Your task to perform on an android device: install app "NewsBreak: Local News & Alerts" Image 0: 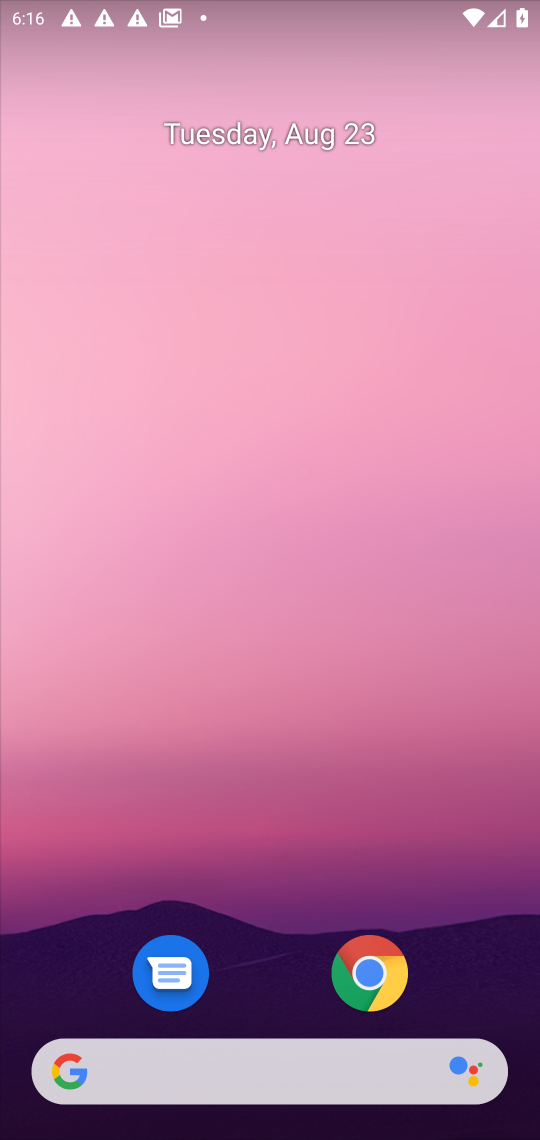
Step 0: press back button
Your task to perform on an android device: install app "NewsBreak: Local News & Alerts" Image 1: 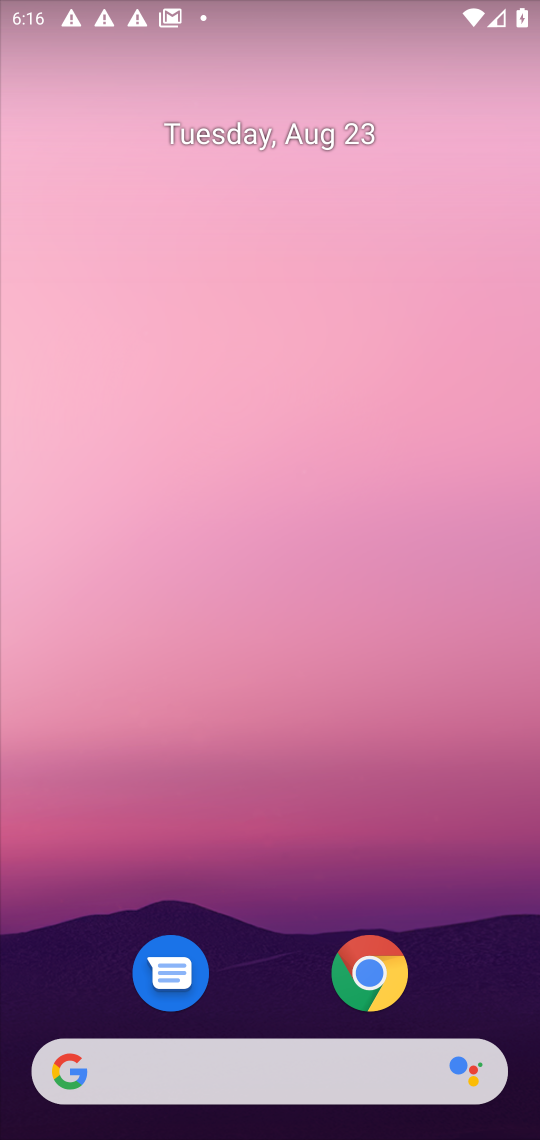
Step 1: drag from (277, 936) to (342, 285)
Your task to perform on an android device: install app "NewsBreak: Local News & Alerts" Image 2: 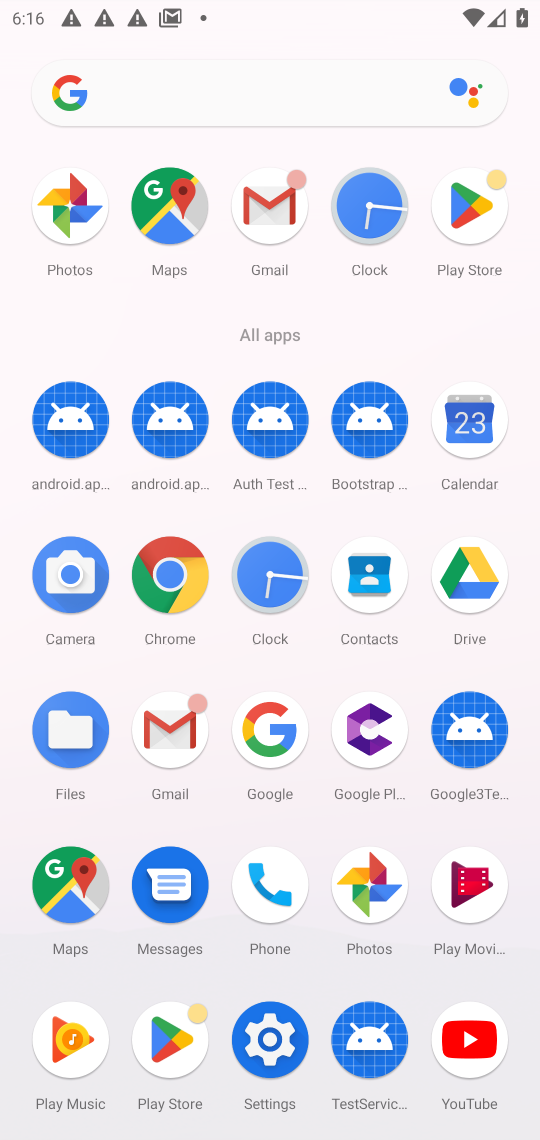
Step 2: click (457, 215)
Your task to perform on an android device: install app "NewsBreak: Local News & Alerts" Image 3: 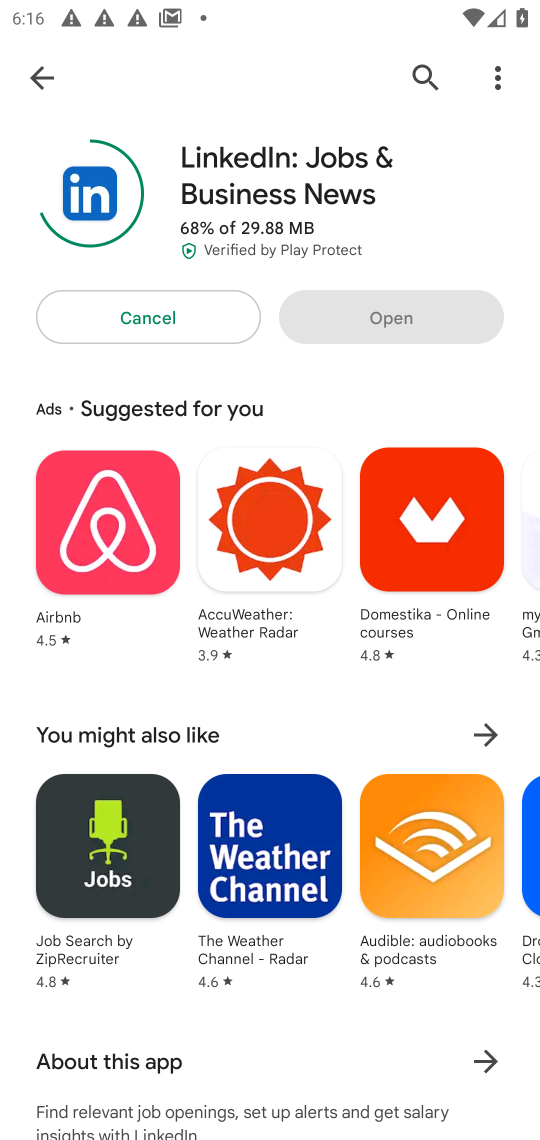
Step 3: click (409, 69)
Your task to perform on an android device: install app "NewsBreak: Local News & Alerts" Image 4: 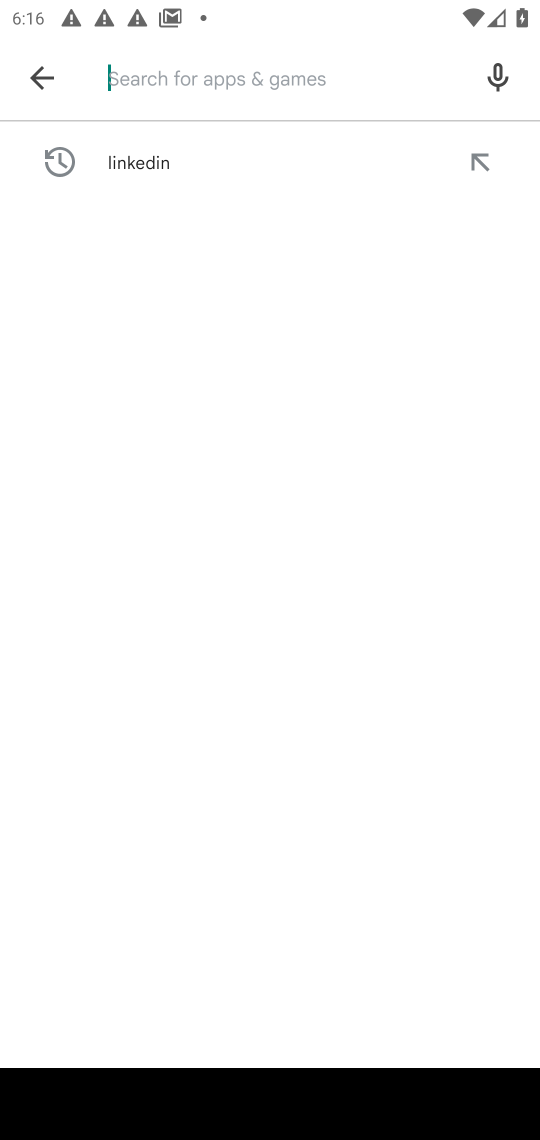
Step 4: click (132, 66)
Your task to perform on an android device: install app "NewsBreak: Local News & Alerts" Image 5: 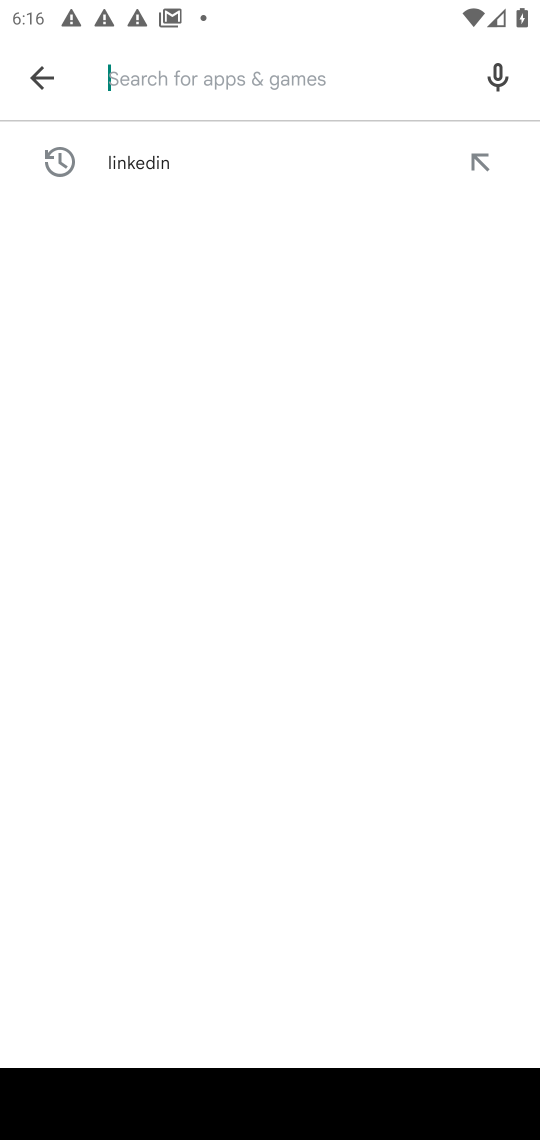
Step 5: type "NewsBreak: Local News & Alert"
Your task to perform on an android device: install app "NewsBreak: Local News & Alerts" Image 6: 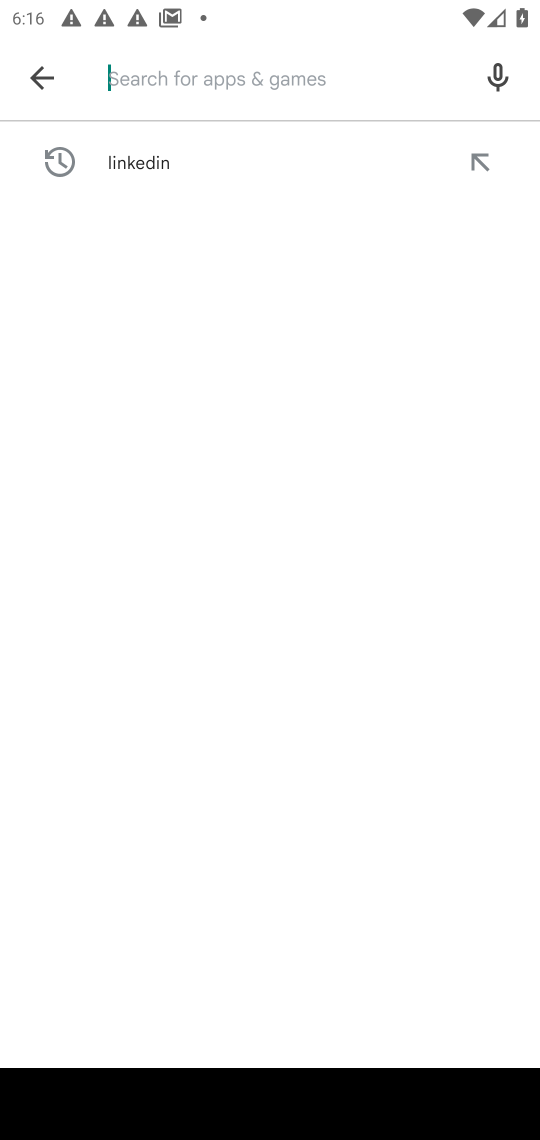
Step 6: click (380, 663)
Your task to perform on an android device: install app "NewsBreak: Local News & Alerts" Image 7: 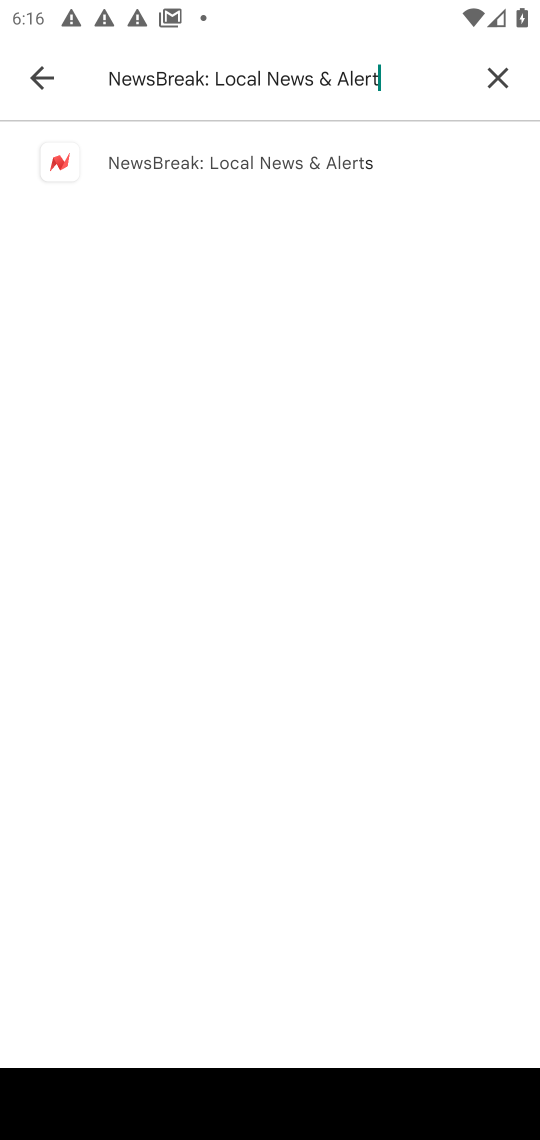
Step 7: click (205, 152)
Your task to perform on an android device: install app "NewsBreak: Local News & Alerts" Image 8: 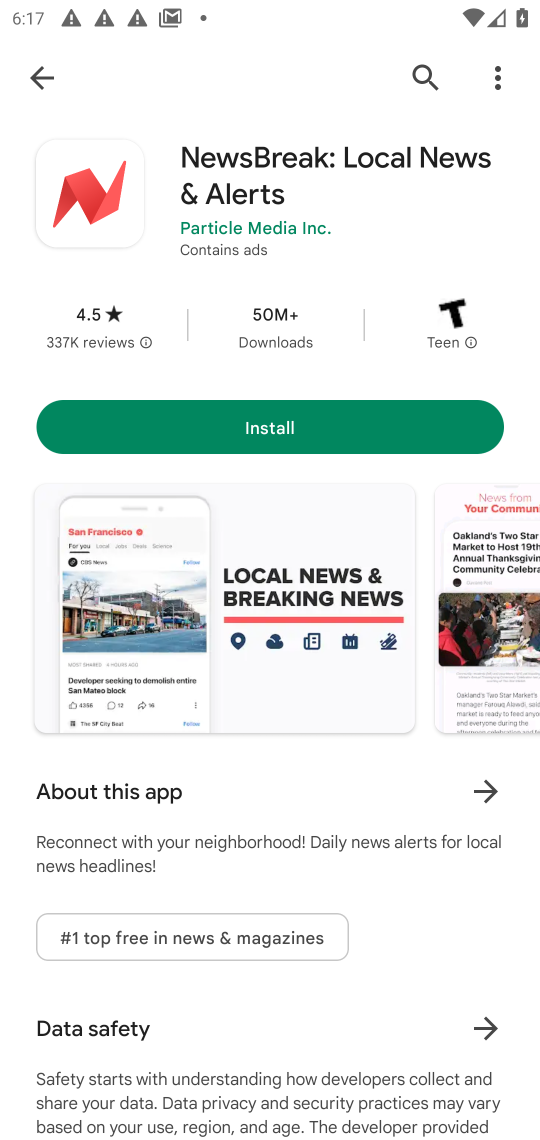
Step 8: click (256, 438)
Your task to perform on an android device: install app "NewsBreak: Local News & Alerts" Image 9: 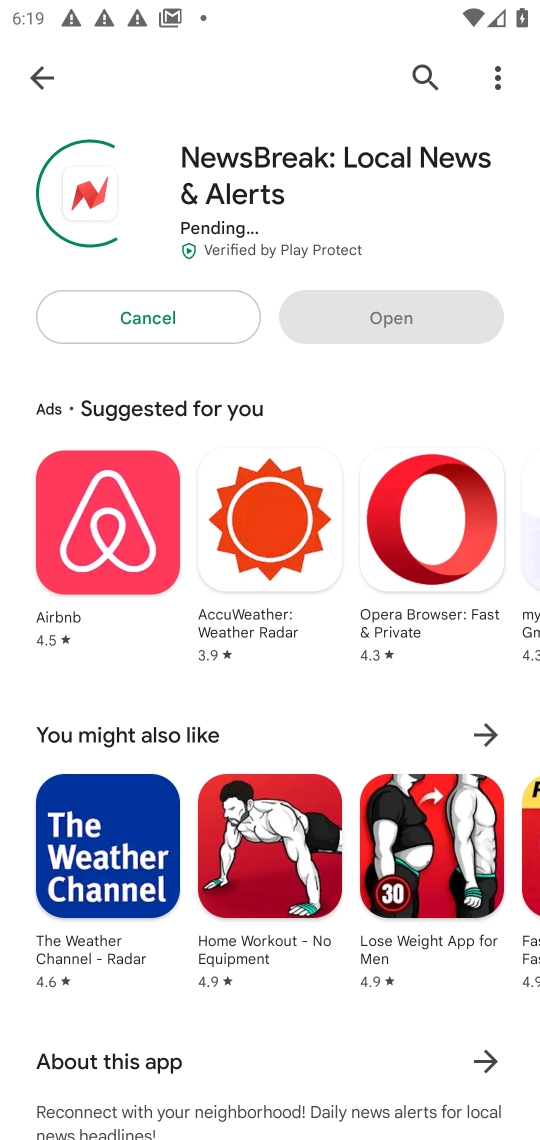
Step 9: click (175, 319)
Your task to perform on an android device: install app "NewsBreak: Local News & Alerts" Image 10: 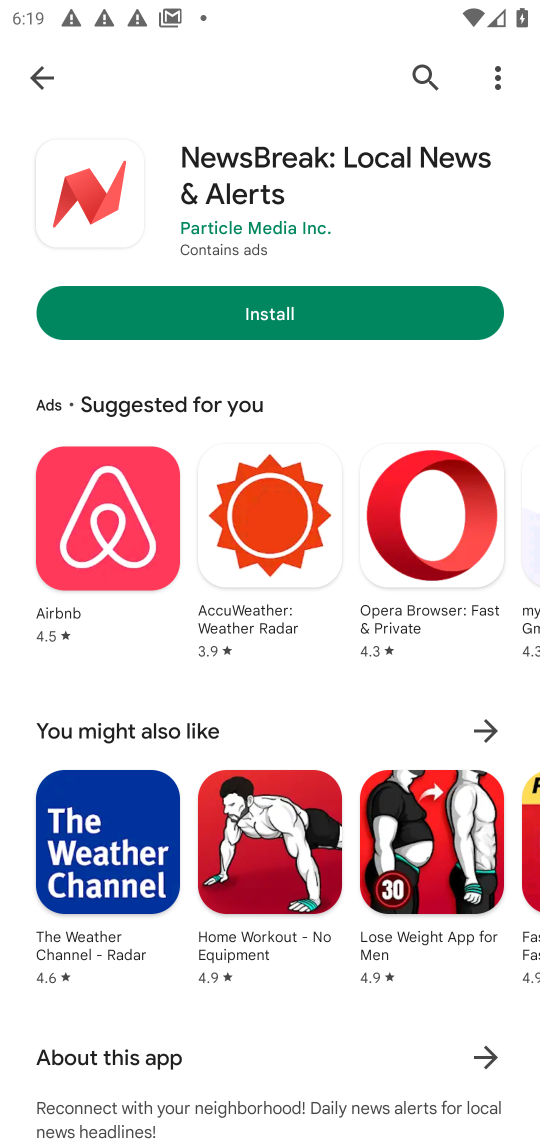
Step 10: click (314, 317)
Your task to perform on an android device: install app "NewsBreak: Local News & Alerts" Image 11: 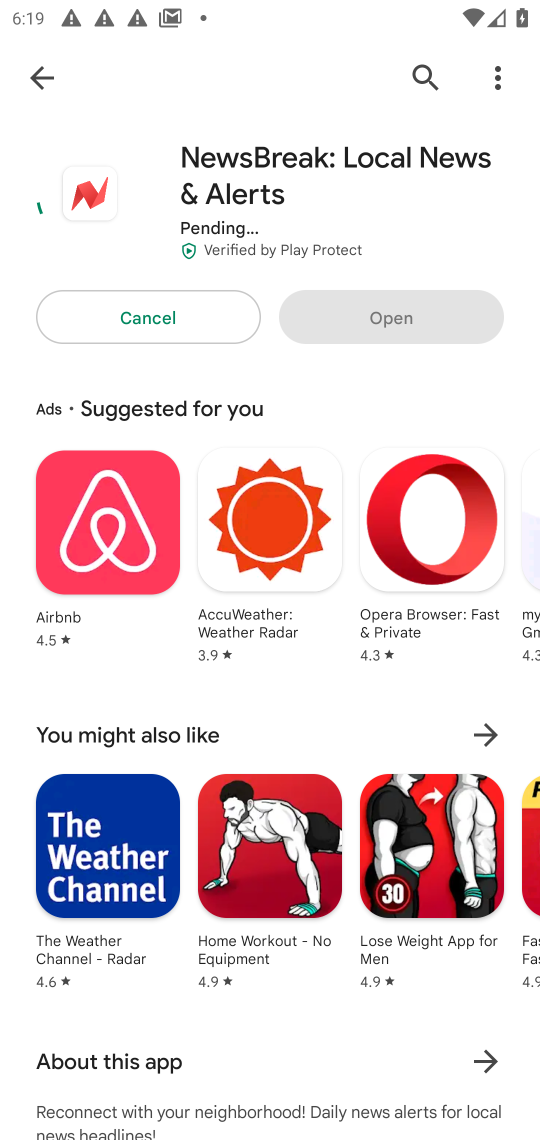
Step 11: task complete